Your task to perform on an android device: Go to Amazon Image 0: 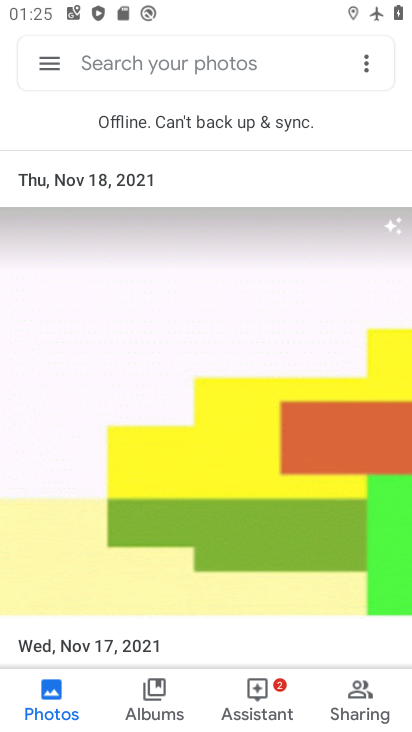
Step 0: press home button
Your task to perform on an android device: Go to Amazon Image 1: 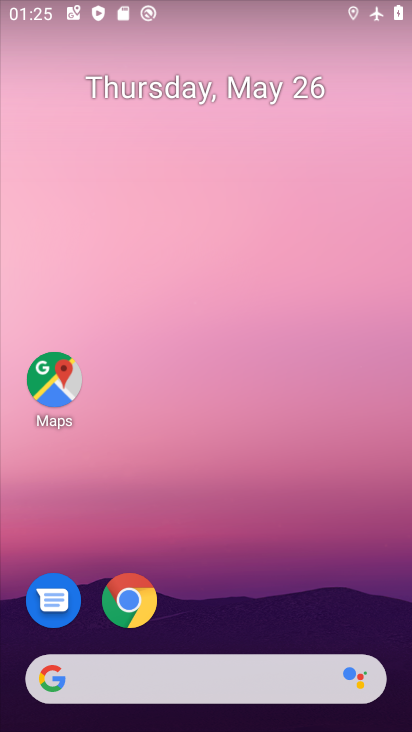
Step 1: click (243, 663)
Your task to perform on an android device: Go to Amazon Image 2: 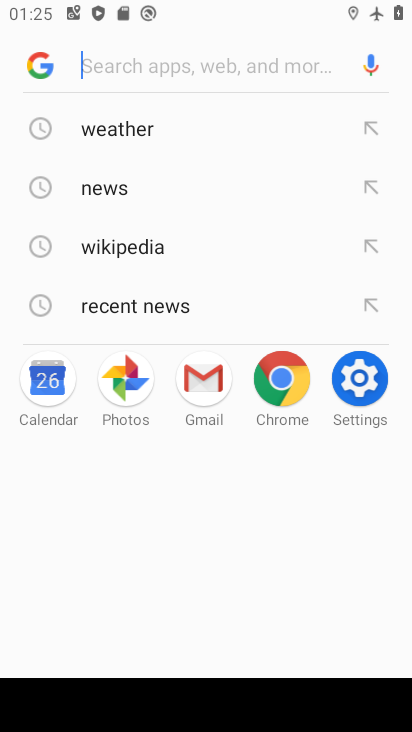
Step 2: click (300, 408)
Your task to perform on an android device: Go to Amazon Image 3: 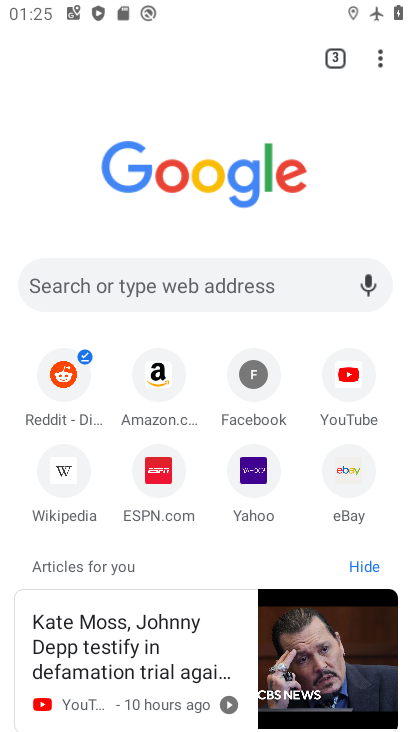
Step 3: click (134, 390)
Your task to perform on an android device: Go to Amazon Image 4: 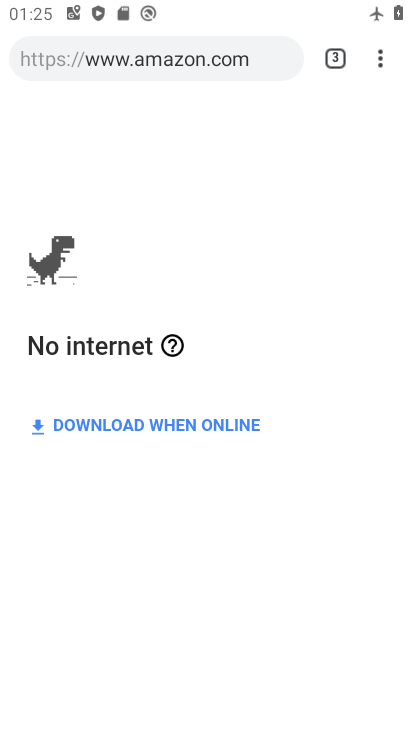
Step 4: drag from (308, 13) to (394, 621)
Your task to perform on an android device: Go to Amazon Image 5: 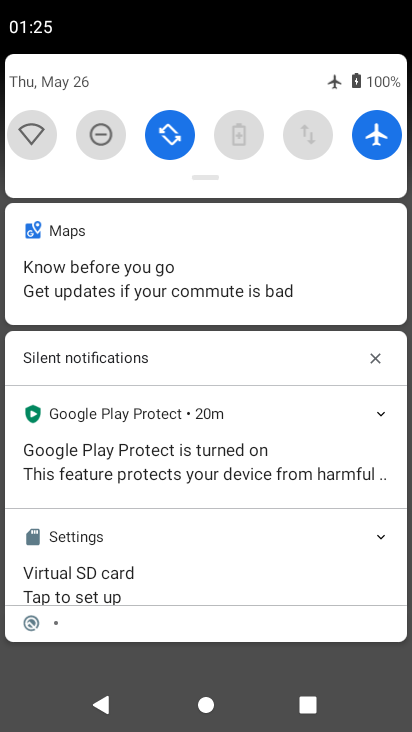
Step 5: click (364, 117)
Your task to perform on an android device: Go to Amazon Image 6: 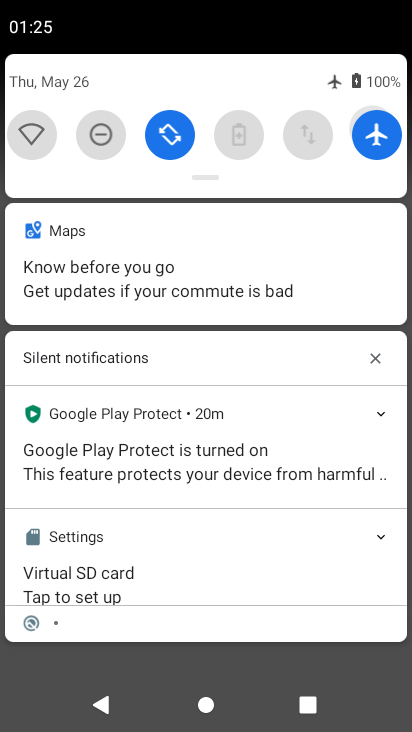
Step 6: click (379, 137)
Your task to perform on an android device: Go to Amazon Image 7: 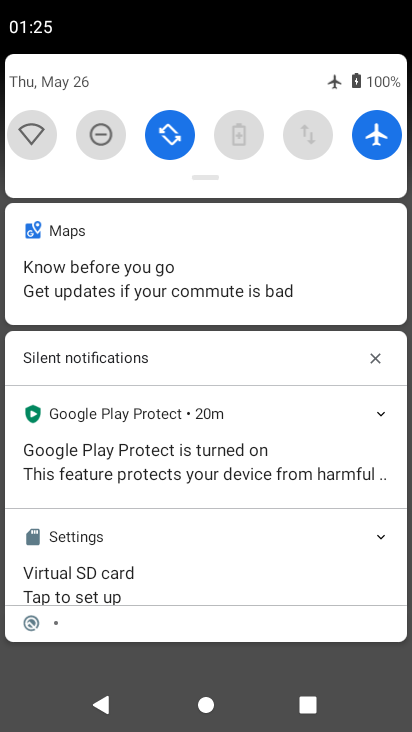
Step 7: click (379, 137)
Your task to perform on an android device: Go to Amazon Image 8: 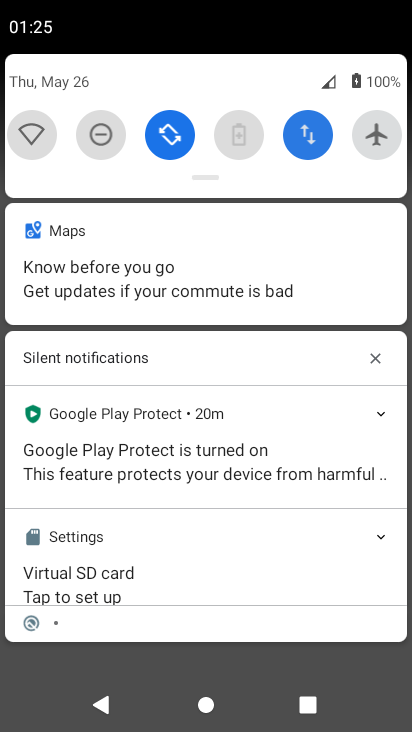
Step 8: click (379, 137)
Your task to perform on an android device: Go to Amazon Image 9: 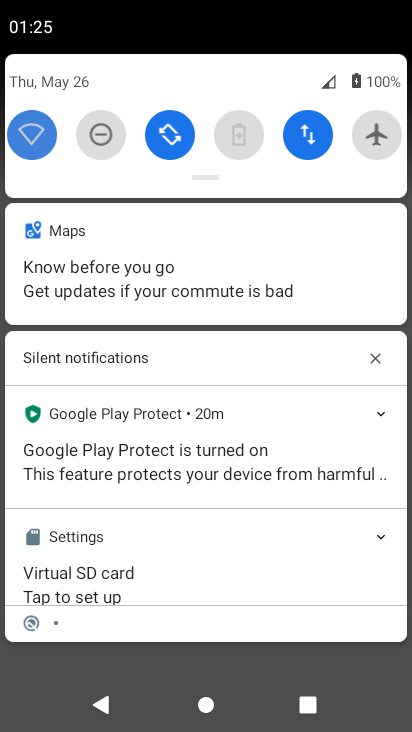
Step 9: click (379, 137)
Your task to perform on an android device: Go to Amazon Image 10: 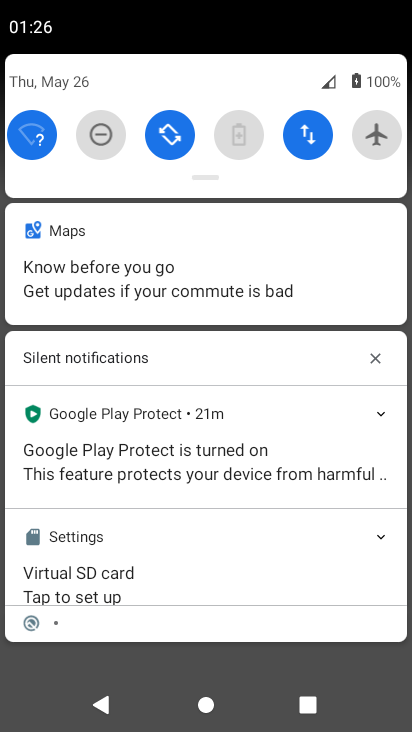
Step 10: task complete